Your task to perform on an android device: Open Google Image 0: 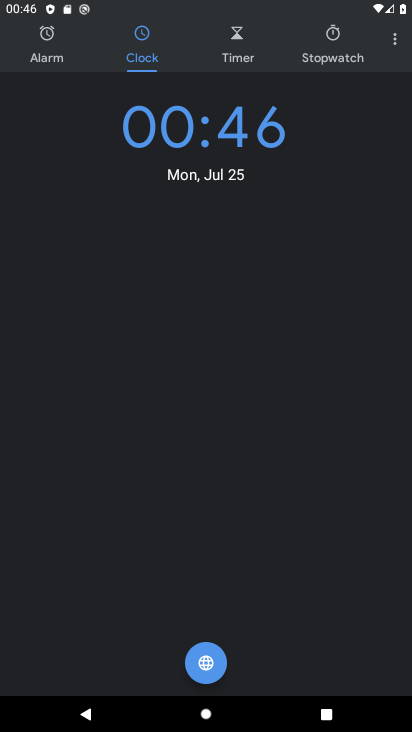
Step 0: press home button
Your task to perform on an android device: Open Google Image 1: 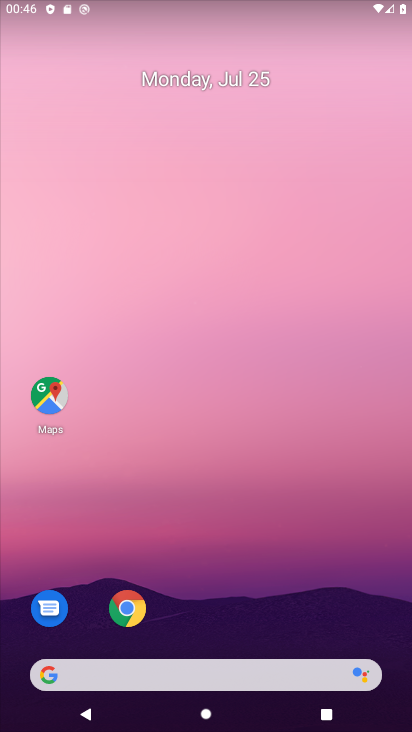
Step 1: drag from (189, 658) to (79, 4)
Your task to perform on an android device: Open Google Image 2: 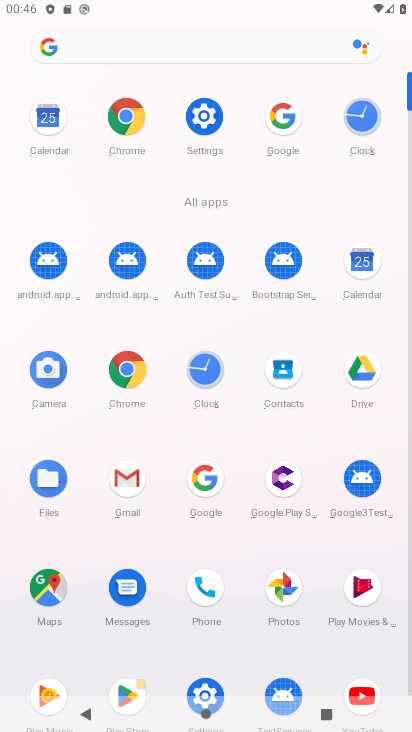
Step 2: click (206, 475)
Your task to perform on an android device: Open Google Image 3: 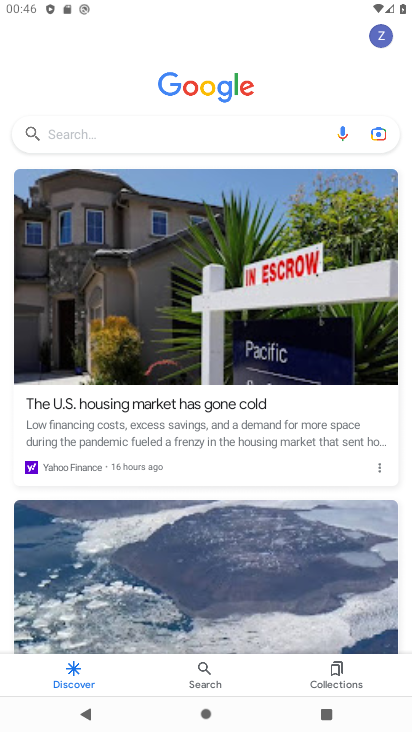
Step 3: task complete